Your task to perform on an android device: change text size in settings app Image 0: 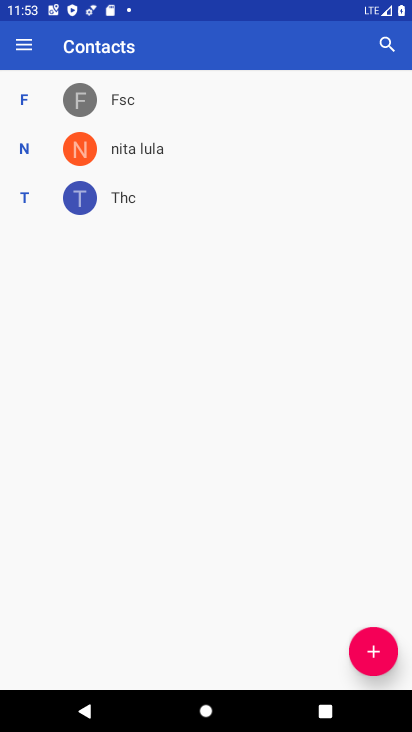
Step 0: press home button
Your task to perform on an android device: change text size in settings app Image 1: 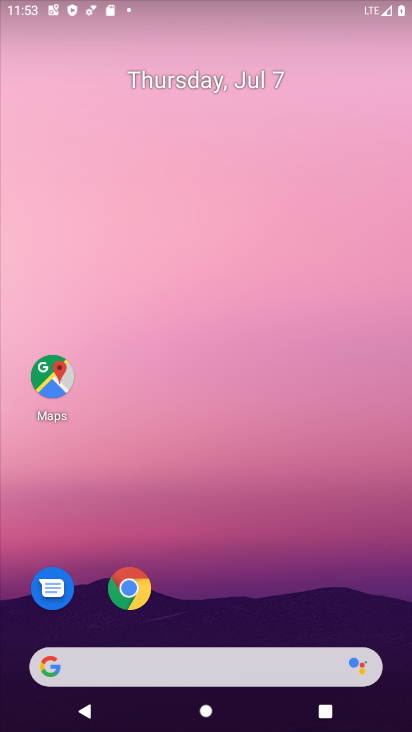
Step 1: drag from (239, 622) to (310, 1)
Your task to perform on an android device: change text size in settings app Image 2: 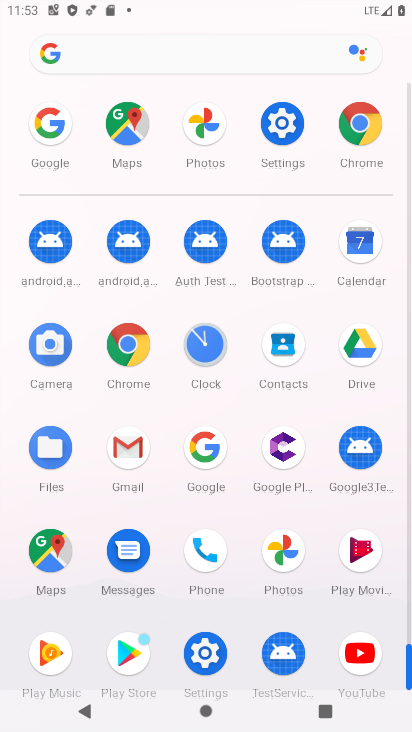
Step 2: click (285, 123)
Your task to perform on an android device: change text size in settings app Image 3: 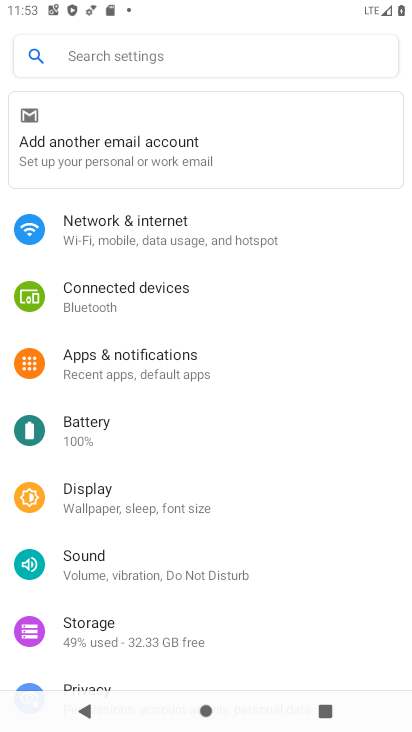
Step 3: click (142, 506)
Your task to perform on an android device: change text size in settings app Image 4: 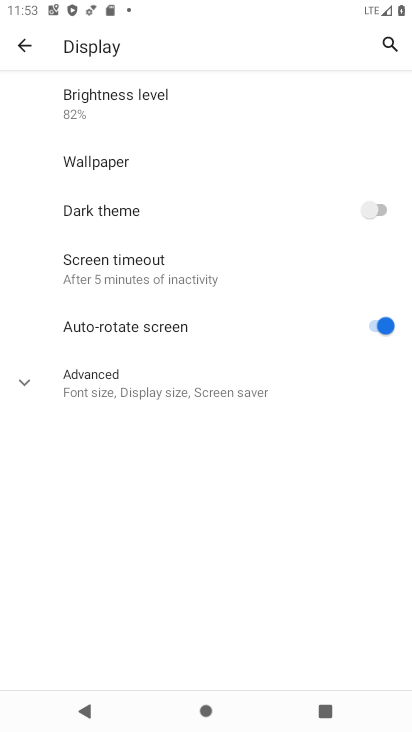
Step 4: click (148, 396)
Your task to perform on an android device: change text size in settings app Image 5: 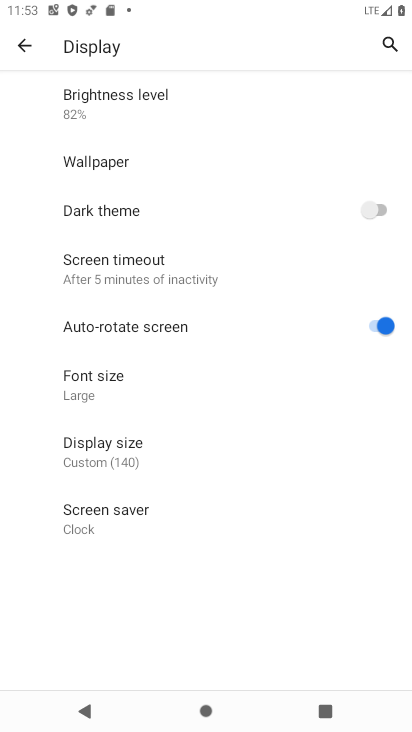
Step 5: click (137, 397)
Your task to perform on an android device: change text size in settings app Image 6: 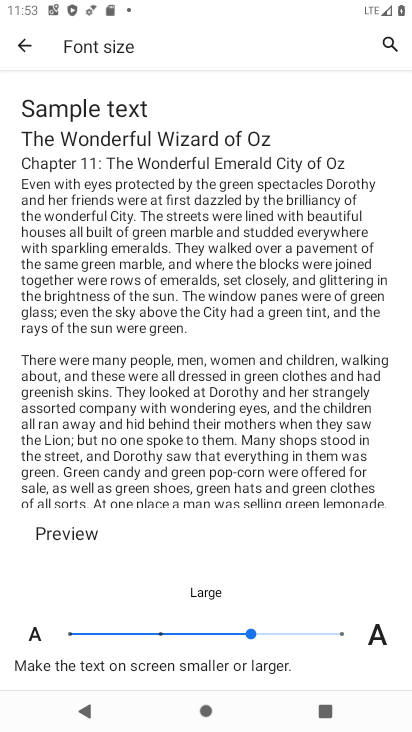
Step 6: task complete